Your task to perform on an android device: check data usage Image 0: 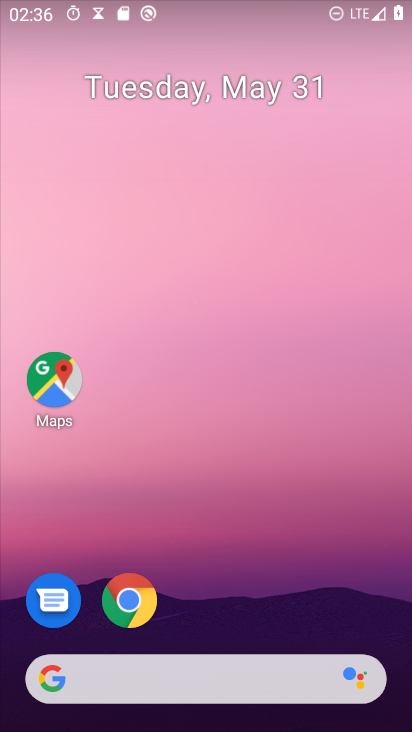
Step 0: drag from (209, 710) to (207, 118)
Your task to perform on an android device: check data usage Image 1: 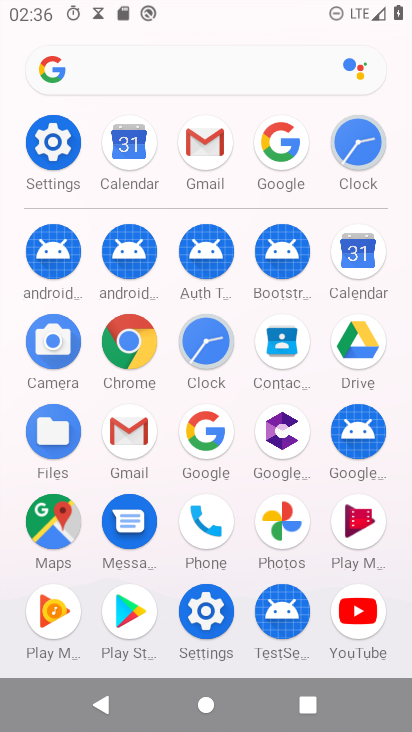
Step 1: click (59, 143)
Your task to perform on an android device: check data usage Image 2: 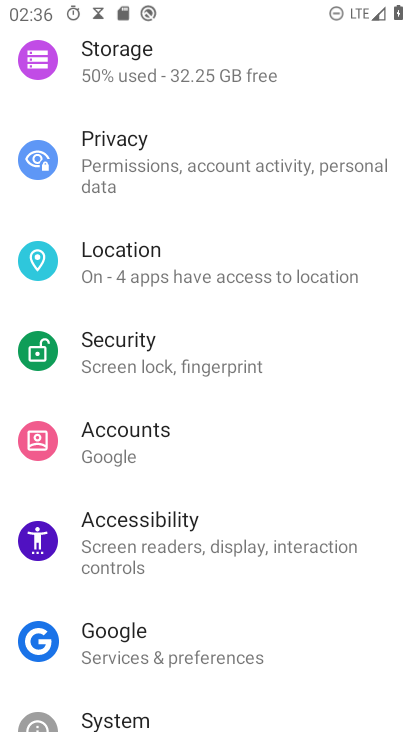
Step 2: drag from (300, 119) to (288, 604)
Your task to perform on an android device: check data usage Image 3: 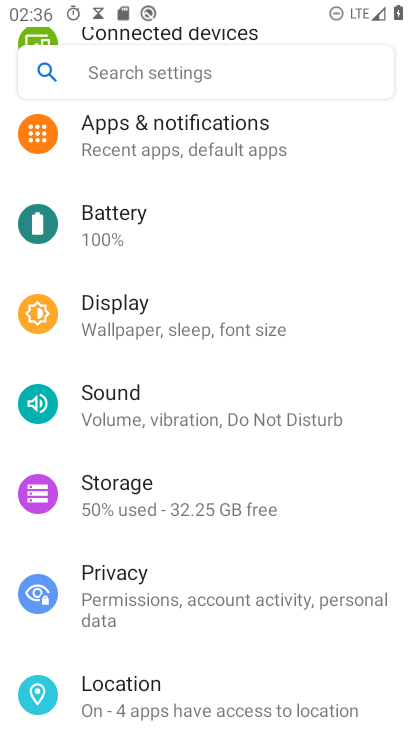
Step 3: drag from (304, 150) to (258, 535)
Your task to perform on an android device: check data usage Image 4: 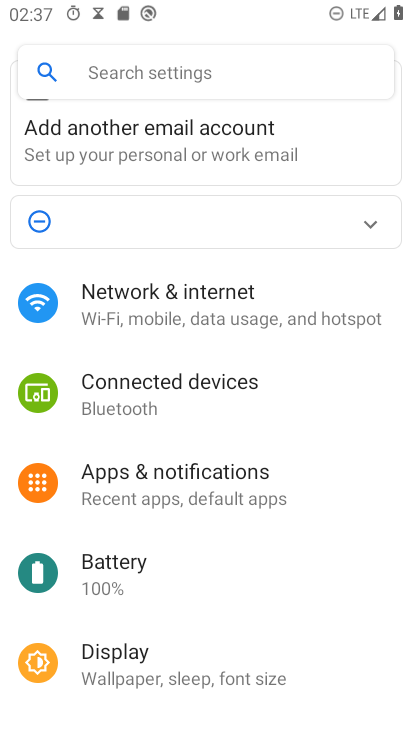
Step 4: click (154, 308)
Your task to perform on an android device: check data usage Image 5: 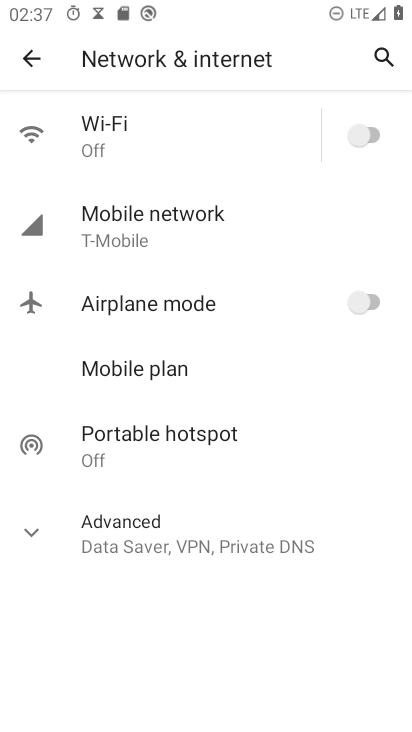
Step 5: click (141, 206)
Your task to perform on an android device: check data usage Image 6: 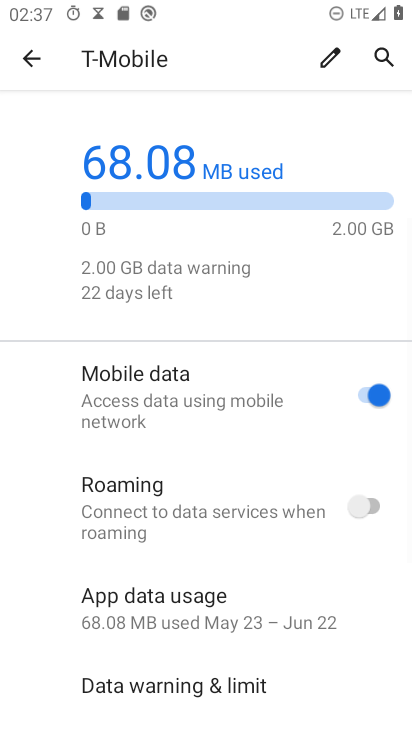
Step 6: click (134, 589)
Your task to perform on an android device: check data usage Image 7: 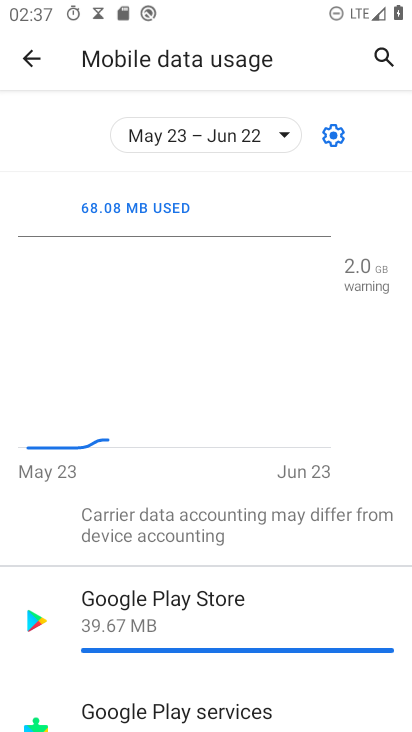
Step 7: task complete